Your task to perform on an android device: Go to battery settings Image 0: 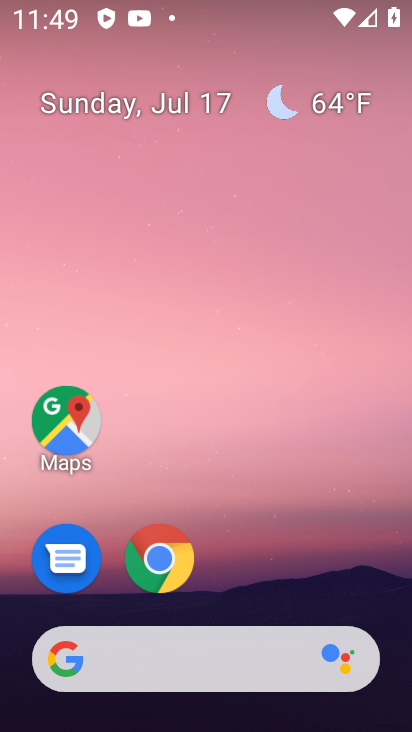
Step 0: drag from (335, 583) to (361, 101)
Your task to perform on an android device: Go to battery settings Image 1: 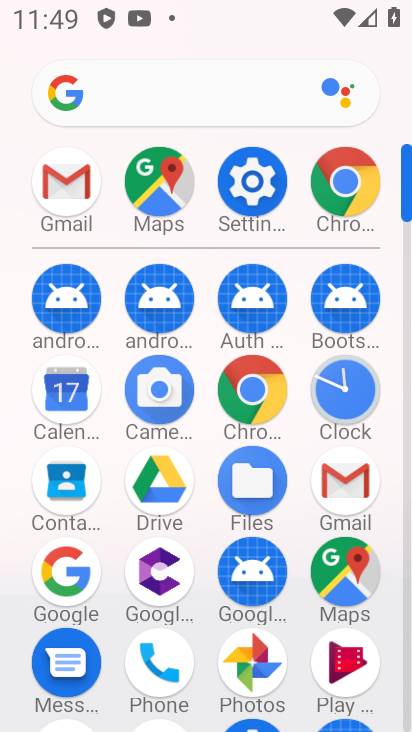
Step 1: click (263, 192)
Your task to perform on an android device: Go to battery settings Image 2: 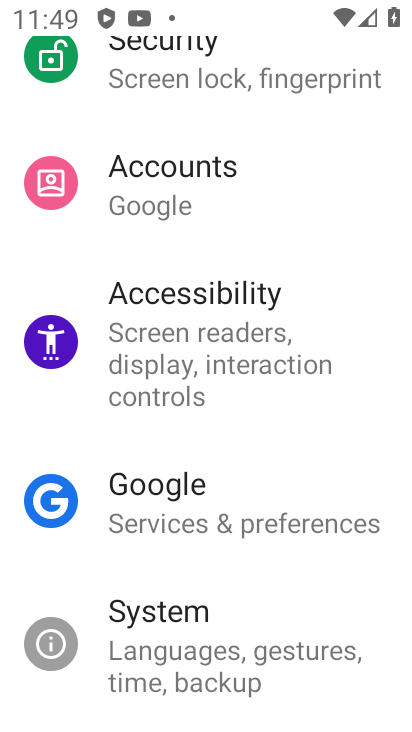
Step 2: drag from (344, 161) to (366, 258)
Your task to perform on an android device: Go to battery settings Image 3: 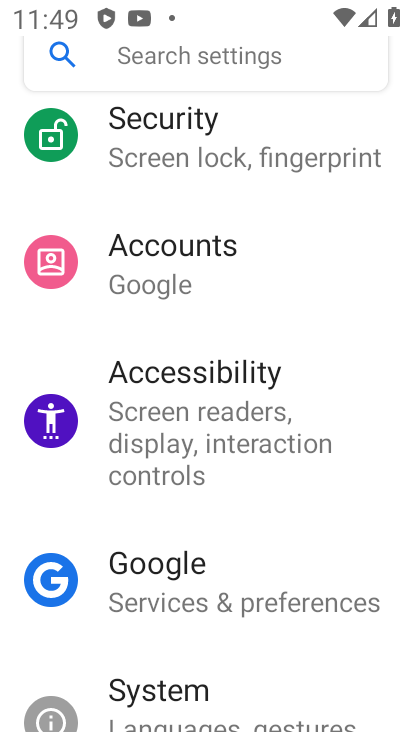
Step 3: drag from (363, 197) to (368, 291)
Your task to perform on an android device: Go to battery settings Image 4: 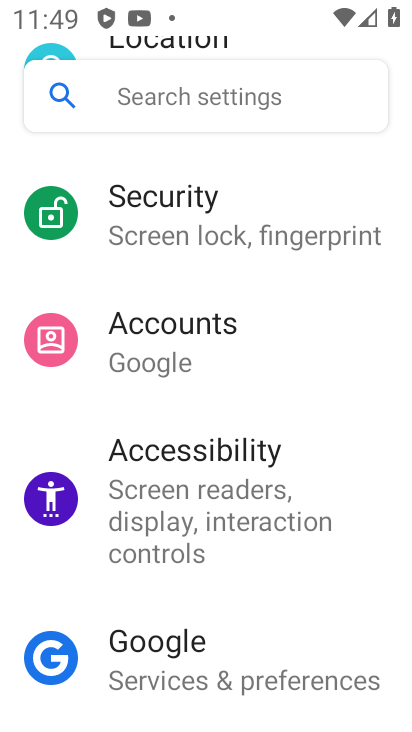
Step 4: drag from (365, 182) to (362, 309)
Your task to perform on an android device: Go to battery settings Image 5: 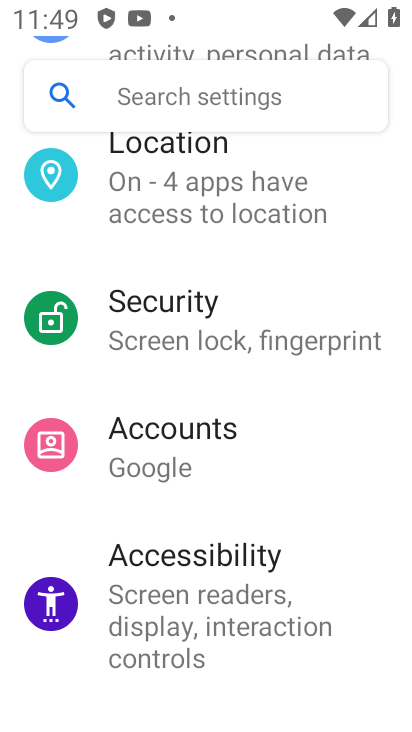
Step 5: drag from (356, 190) to (345, 300)
Your task to perform on an android device: Go to battery settings Image 6: 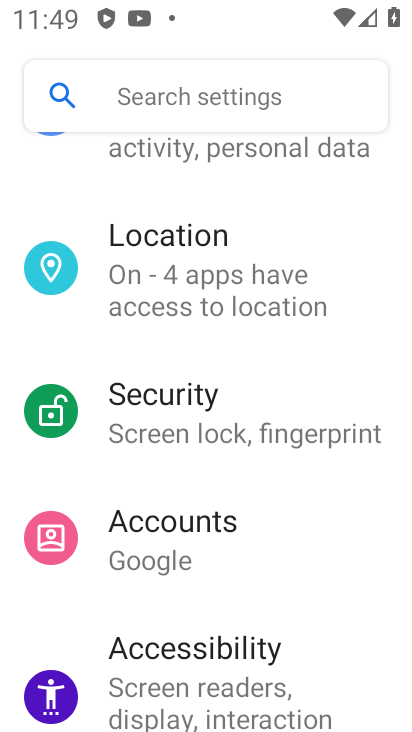
Step 6: drag from (351, 211) to (348, 339)
Your task to perform on an android device: Go to battery settings Image 7: 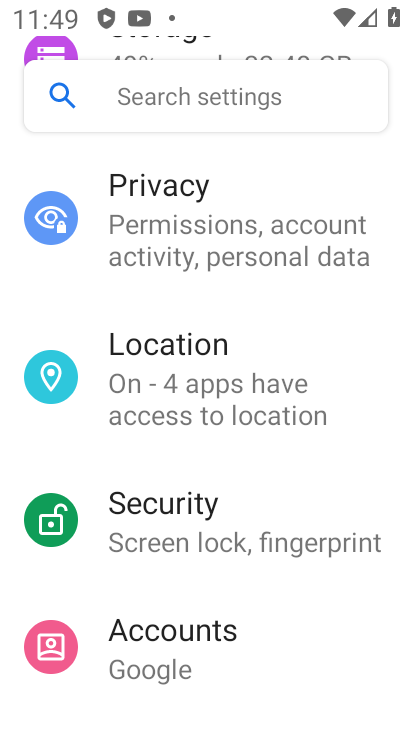
Step 7: drag from (347, 180) to (348, 349)
Your task to perform on an android device: Go to battery settings Image 8: 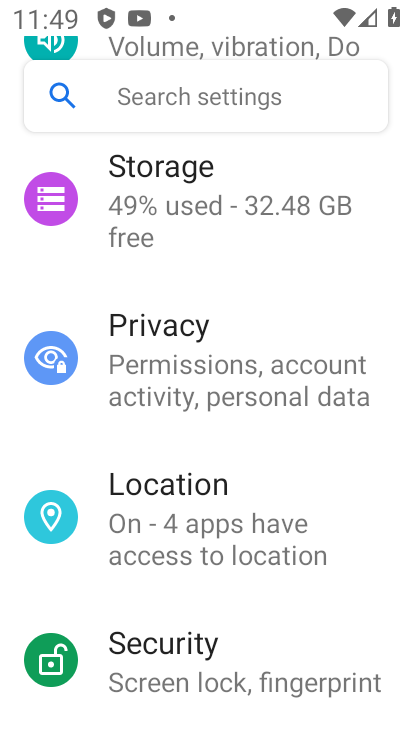
Step 8: drag from (346, 168) to (344, 313)
Your task to perform on an android device: Go to battery settings Image 9: 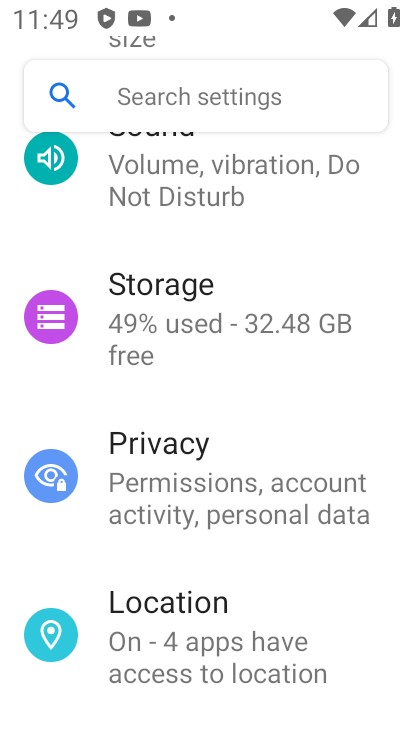
Step 9: drag from (364, 155) to (364, 296)
Your task to perform on an android device: Go to battery settings Image 10: 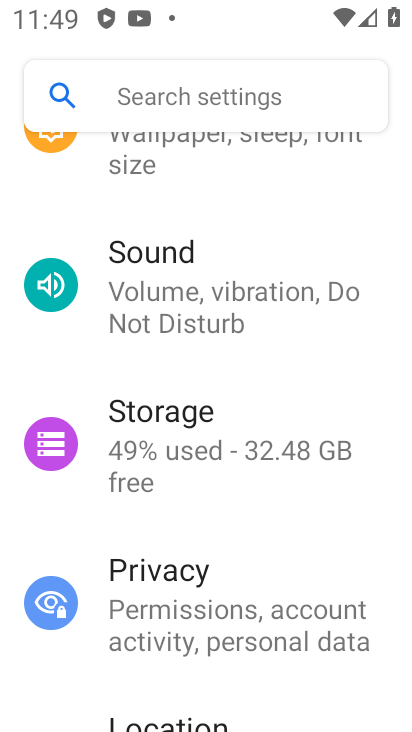
Step 10: drag from (352, 185) to (357, 295)
Your task to perform on an android device: Go to battery settings Image 11: 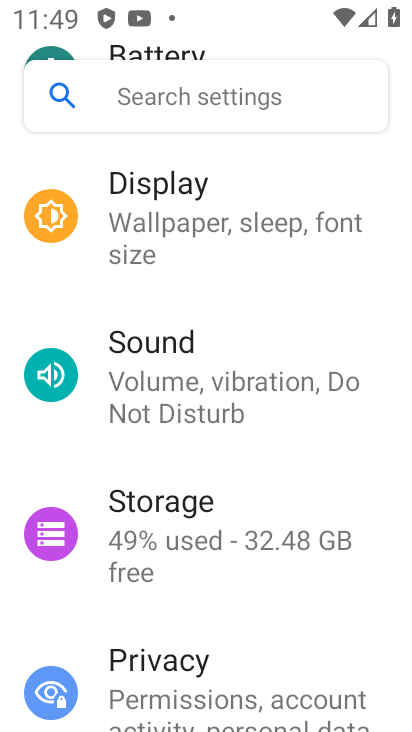
Step 11: drag from (352, 151) to (351, 290)
Your task to perform on an android device: Go to battery settings Image 12: 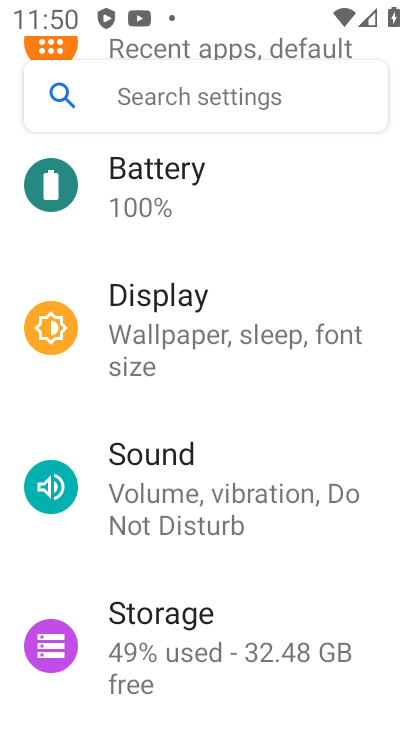
Step 12: drag from (330, 164) to (331, 325)
Your task to perform on an android device: Go to battery settings Image 13: 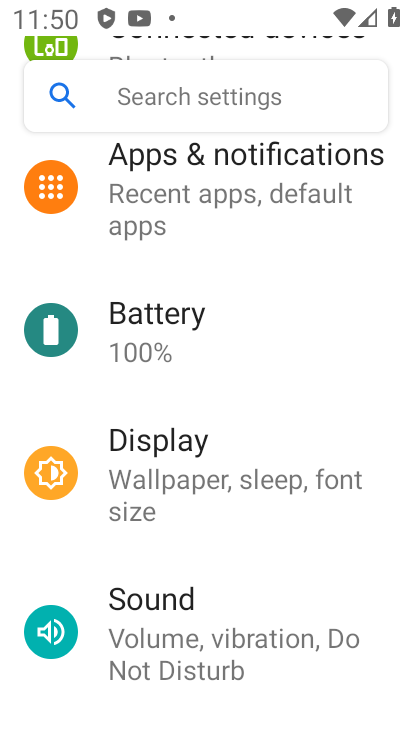
Step 13: click (248, 337)
Your task to perform on an android device: Go to battery settings Image 14: 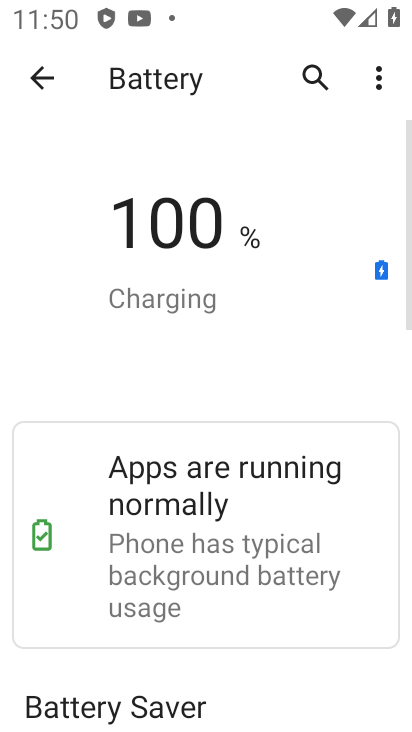
Step 14: task complete